Your task to perform on an android device: Set the phone to "Do not disturb". Image 0: 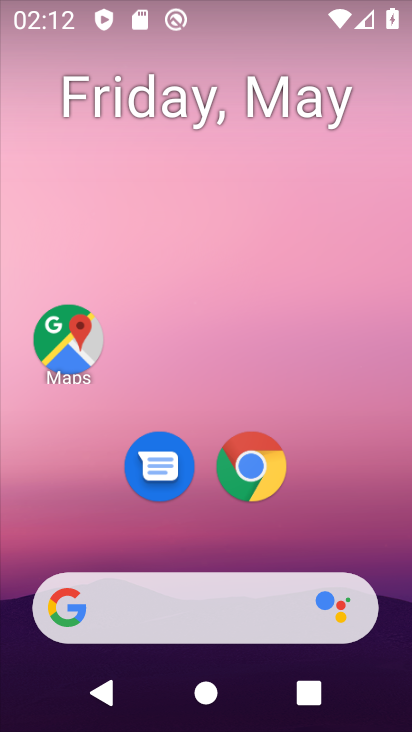
Step 0: drag from (376, 553) to (305, 135)
Your task to perform on an android device: Set the phone to "Do not disturb". Image 1: 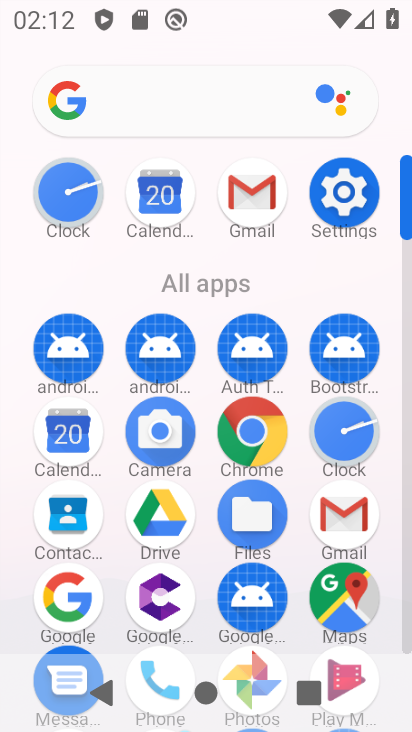
Step 1: click (339, 181)
Your task to perform on an android device: Set the phone to "Do not disturb". Image 2: 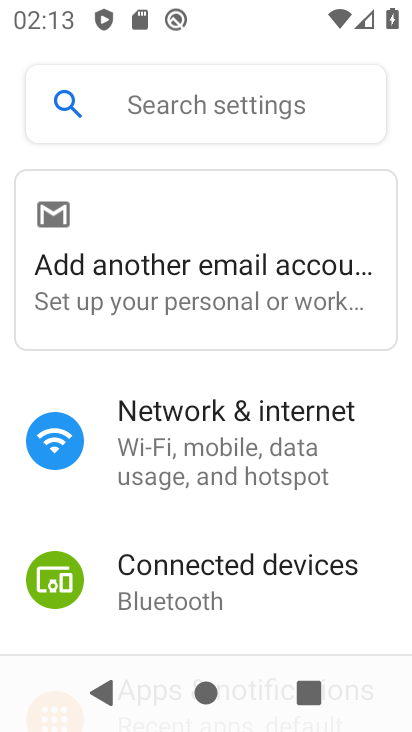
Step 2: drag from (328, 506) to (278, 198)
Your task to perform on an android device: Set the phone to "Do not disturb". Image 3: 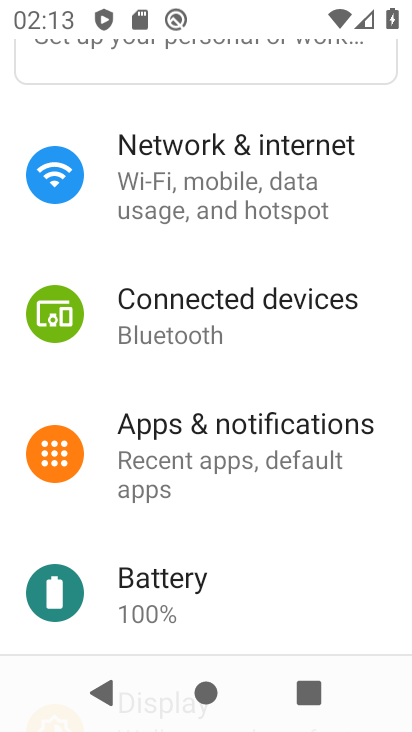
Step 3: drag from (249, 571) to (219, 286)
Your task to perform on an android device: Set the phone to "Do not disturb". Image 4: 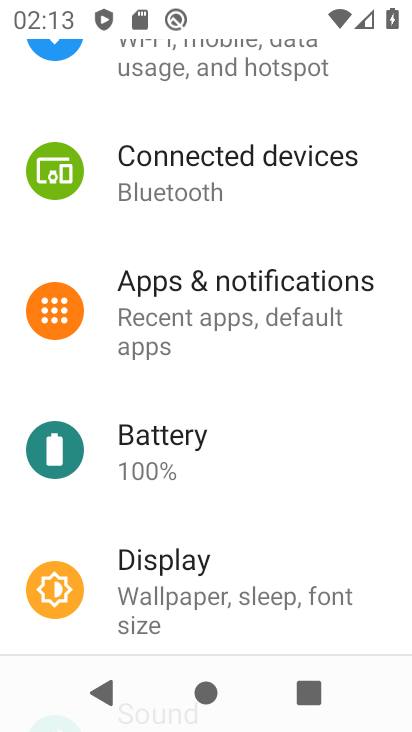
Step 4: drag from (244, 616) to (215, 460)
Your task to perform on an android device: Set the phone to "Do not disturb". Image 5: 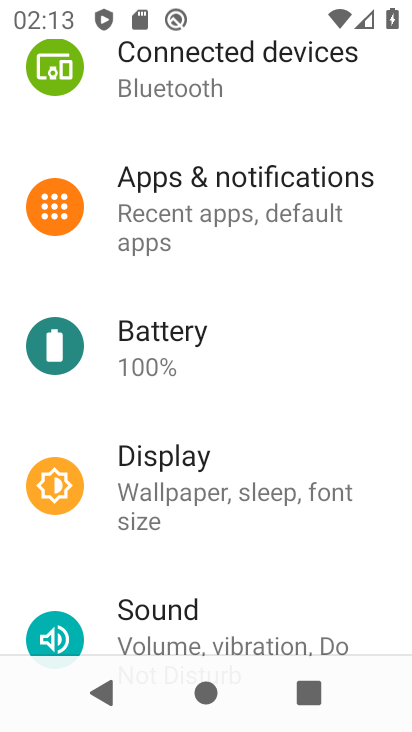
Step 5: click (221, 615)
Your task to perform on an android device: Set the phone to "Do not disturb". Image 6: 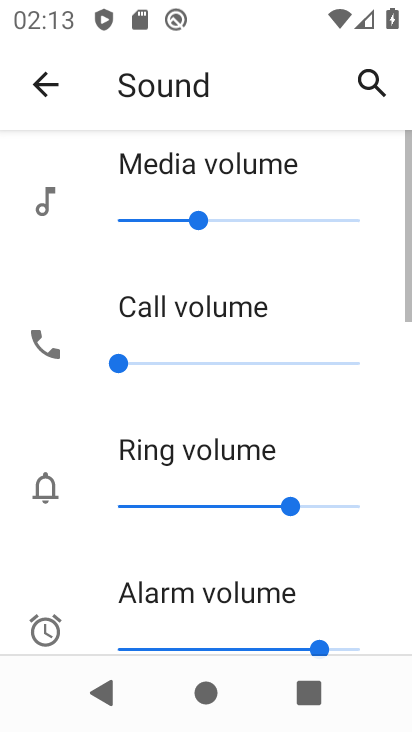
Step 6: drag from (221, 614) to (195, 108)
Your task to perform on an android device: Set the phone to "Do not disturb". Image 7: 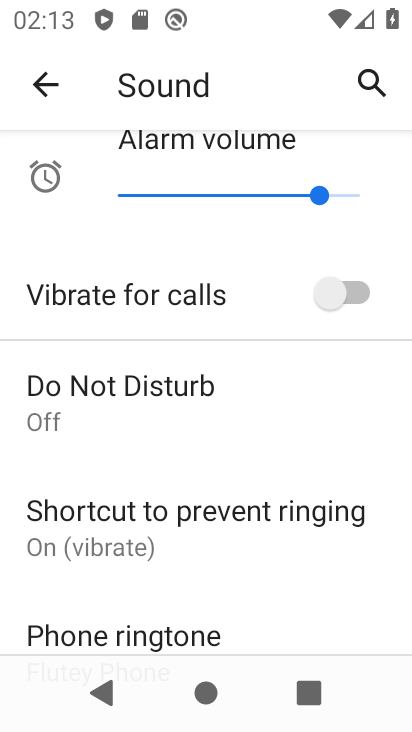
Step 7: click (204, 394)
Your task to perform on an android device: Set the phone to "Do not disturb". Image 8: 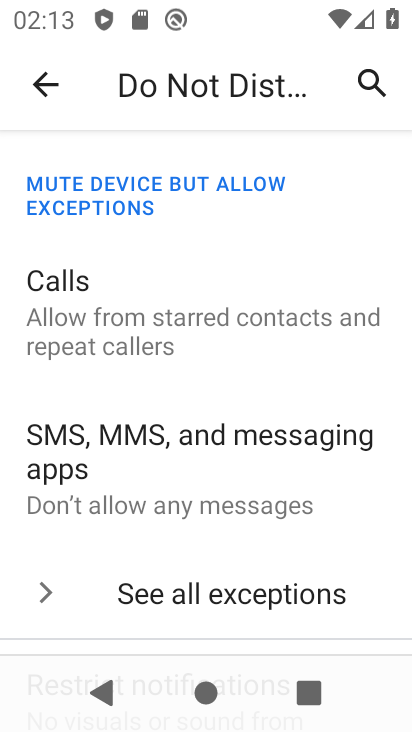
Step 8: drag from (232, 514) to (227, 243)
Your task to perform on an android device: Set the phone to "Do not disturb". Image 9: 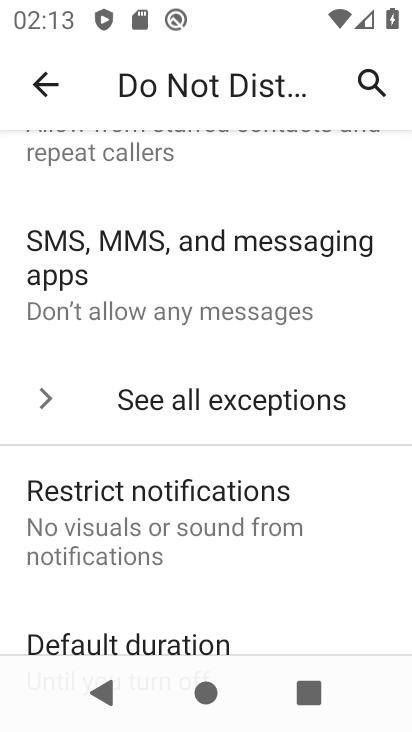
Step 9: drag from (250, 476) to (230, 291)
Your task to perform on an android device: Set the phone to "Do not disturb". Image 10: 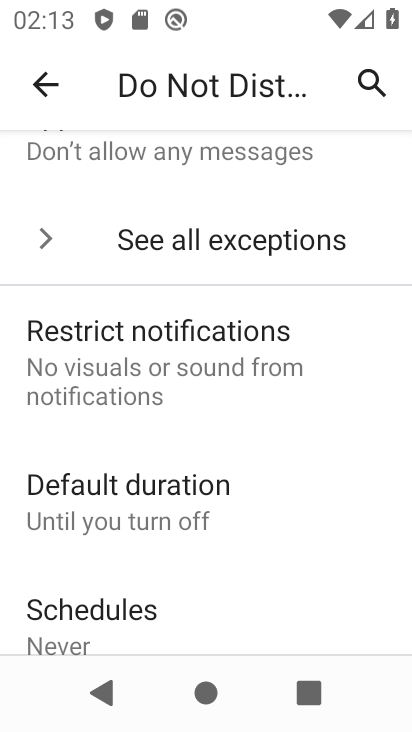
Step 10: drag from (233, 459) to (165, 68)
Your task to perform on an android device: Set the phone to "Do not disturb". Image 11: 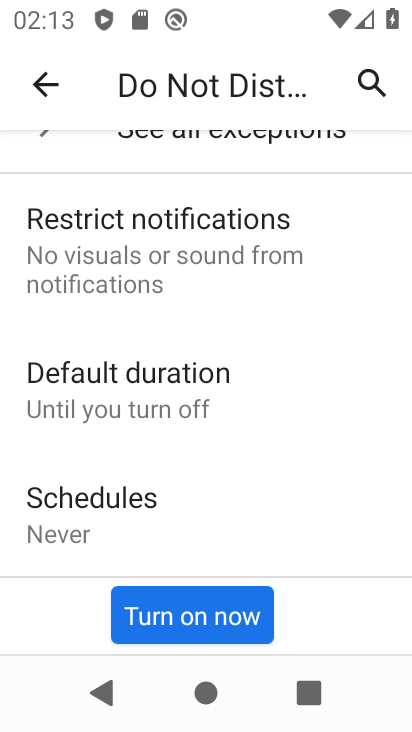
Step 11: click (246, 616)
Your task to perform on an android device: Set the phone to "Do not disturb". Image 12: 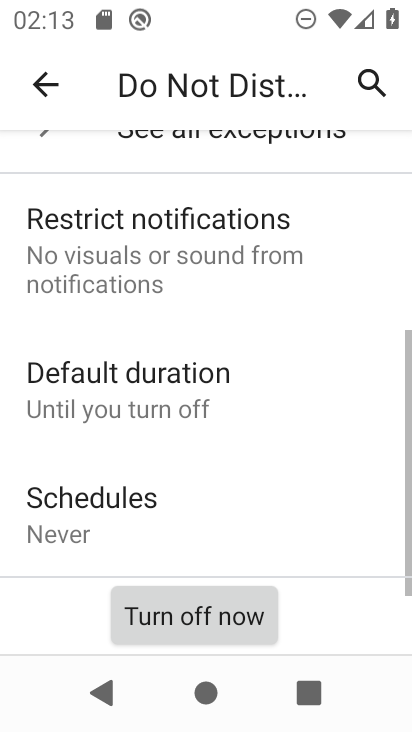
Step 12: task complete